Your task to perform on an android device: What's on my calendar tomorrow? Image 0: 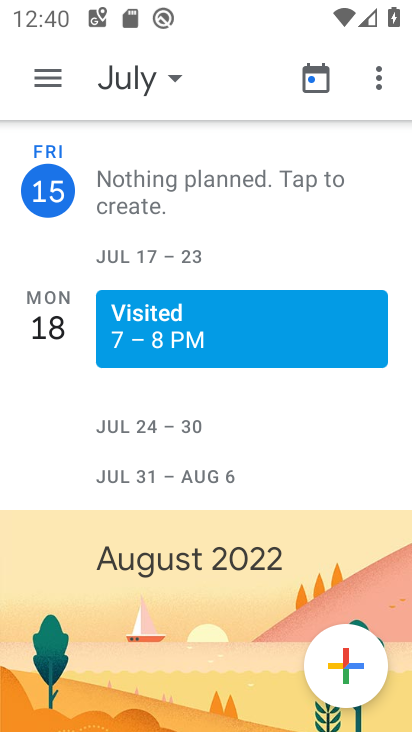
Step 0: press home button
Your task to perform on an android device: What's on my calendar tomorrow? Image 1: 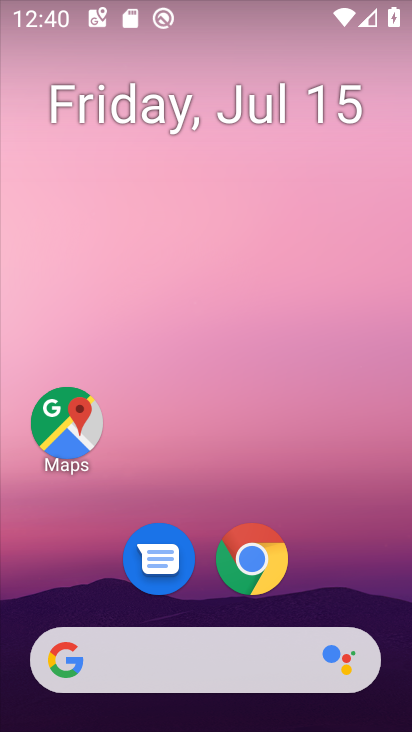
Step 1: drag from (344, 549) to (387, 113)
Your task to perform on an android device: What's on my calendar tomorrow? Image 2: 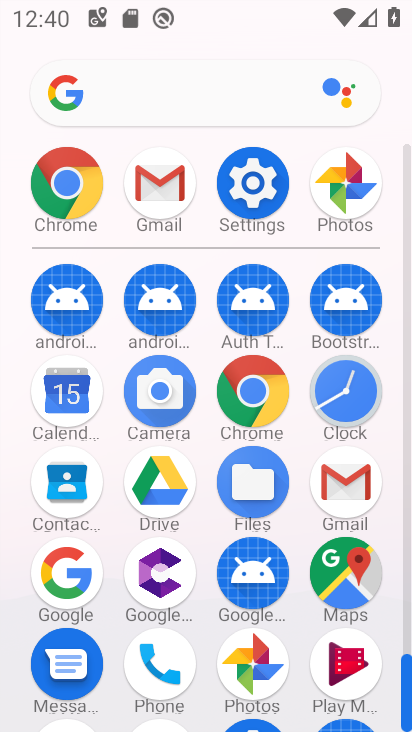
Step 2: click (73, 396)
Your task to perform on an android device: What's on my calendar tomorrow? Image 3: 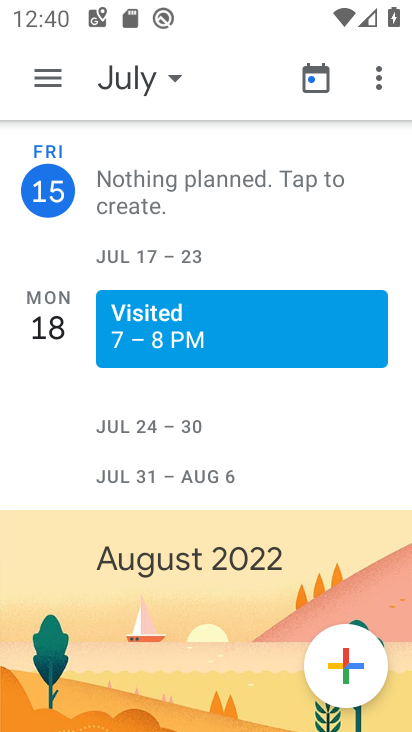
Step 3: click (174, 72)
Your task to perform on an android device: What's on my calendar tomorrow? Image 4: 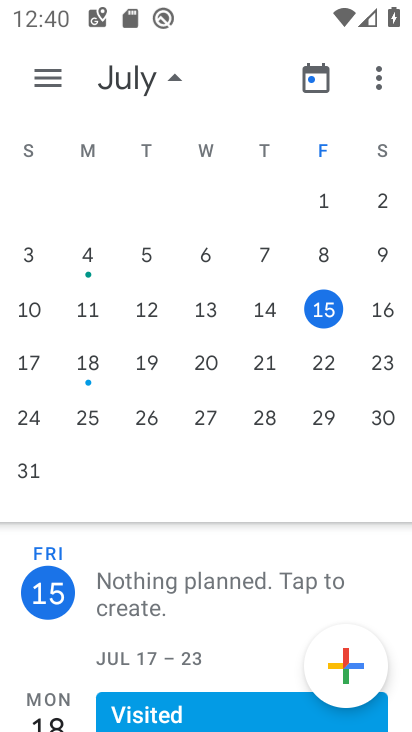
Step 4: click (389, 309)
Your task to perform on an android device: What's on my calendar tomorrow? Image 5: 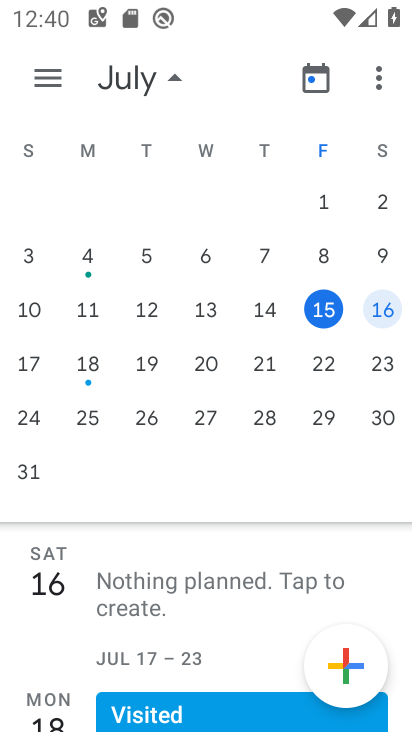
Step 5: task complete